Your task to perform on an android device: Go to privacy settings Image 0: 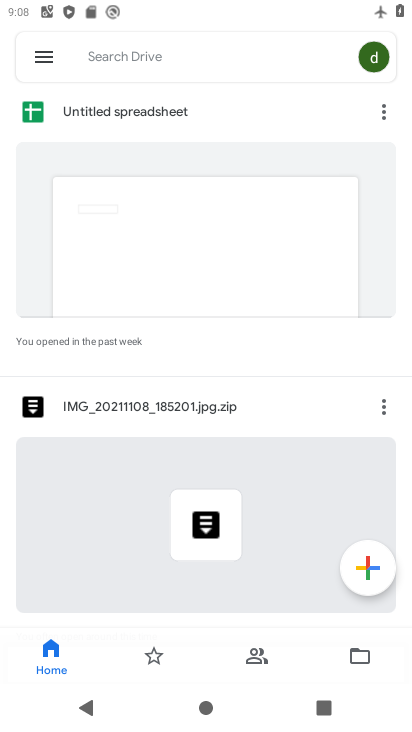
Step 0: press home button
Your task to perform on an android device: Go to privacy settings Image 1: 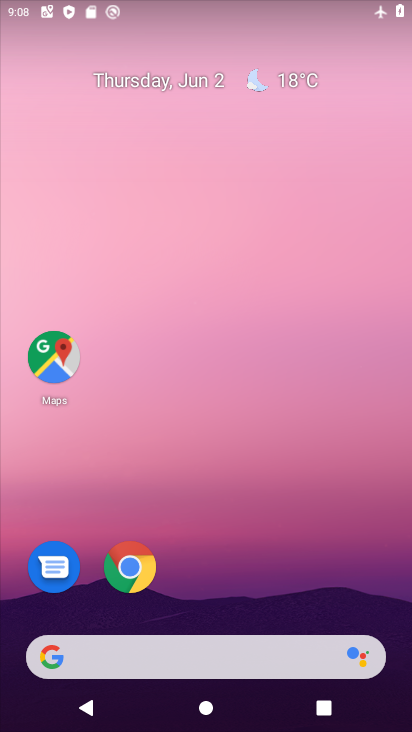
Step 1: drag from (238, 627) to (268, 92)
Your task to perform on an android device: Go to privacy settings Image 2: 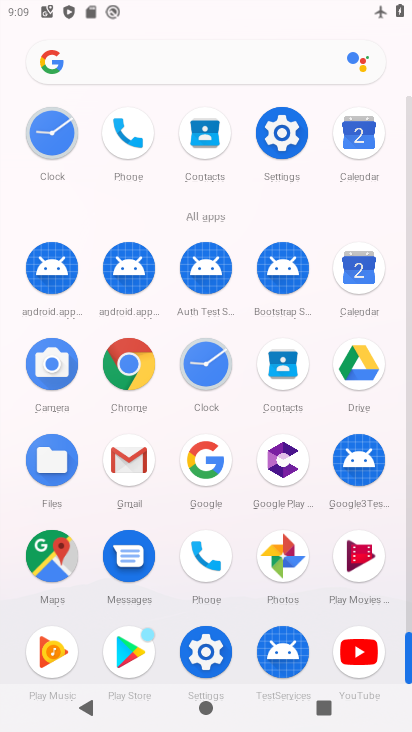
Step 2: click (280, 124)
Your task to perform on an android device: Go to privacy settings Image 3: 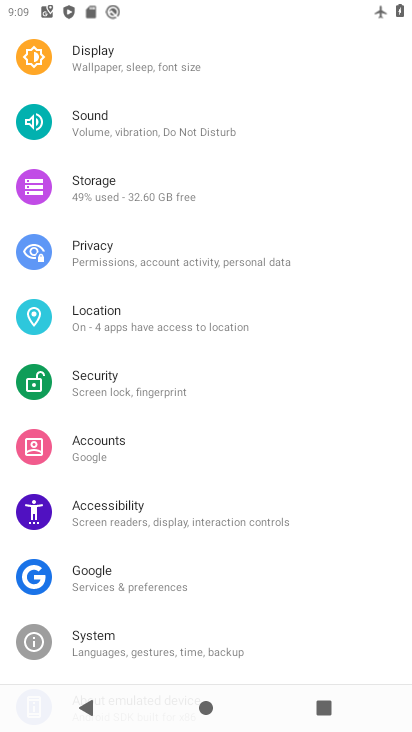
Step 3: click (125, 245)
Your task to perform on an android device: Go to privacy settings Image 4: 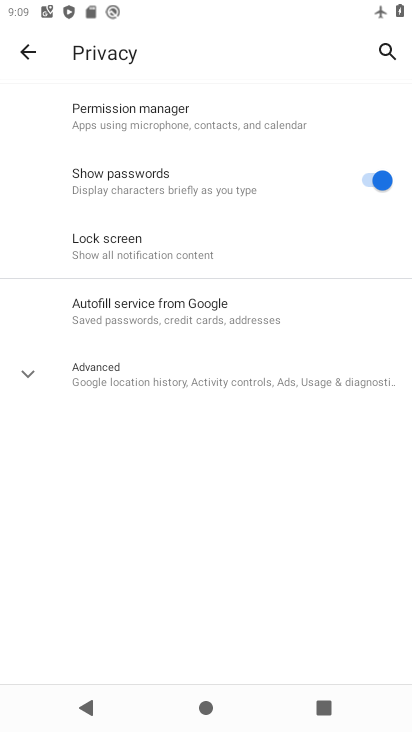
Step 4: click (28, 371)
Your task to perform on an android device: Go to privacy settings Image 5: 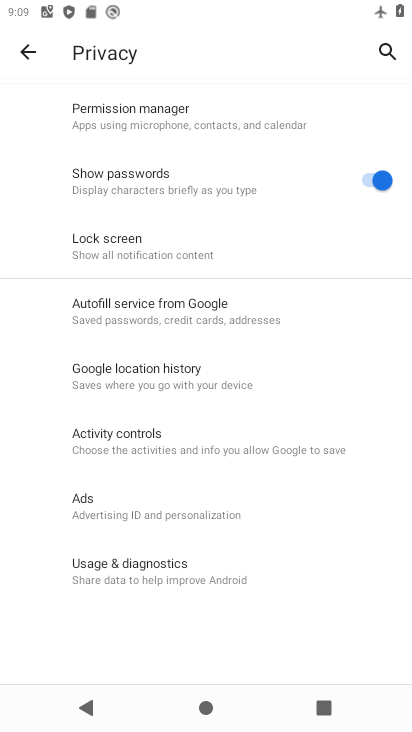
Step 5: task complete